Your task to perform on an android device: turn off airplane mode Image 0: 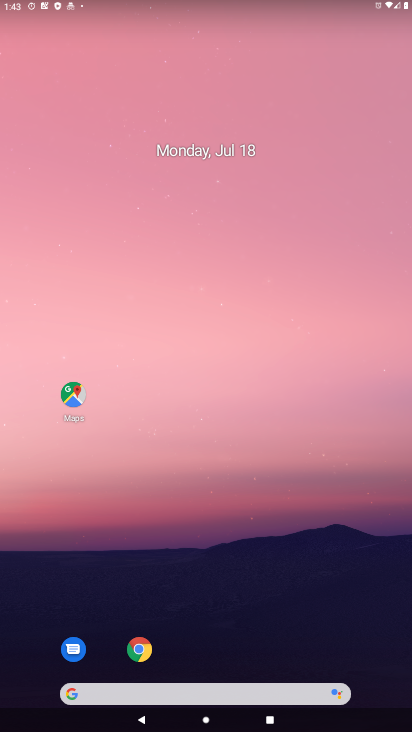
Step 0: click (185, 224)
Your task to perform on an android device: turn off airplane mode Image 1: 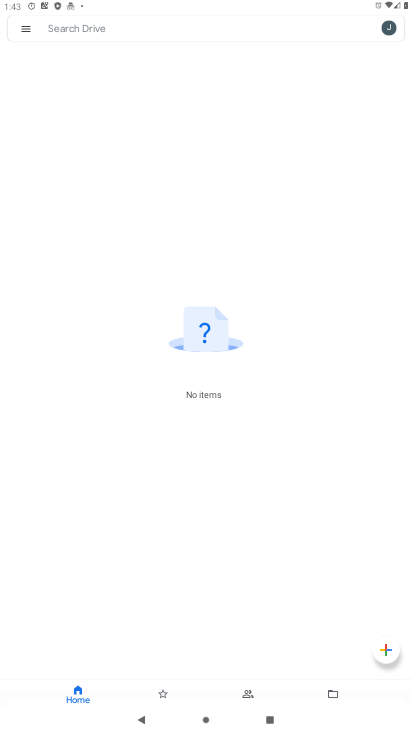
Step 1: press home button
Your task to perform on an android device: turn off airplane mode Image 2: 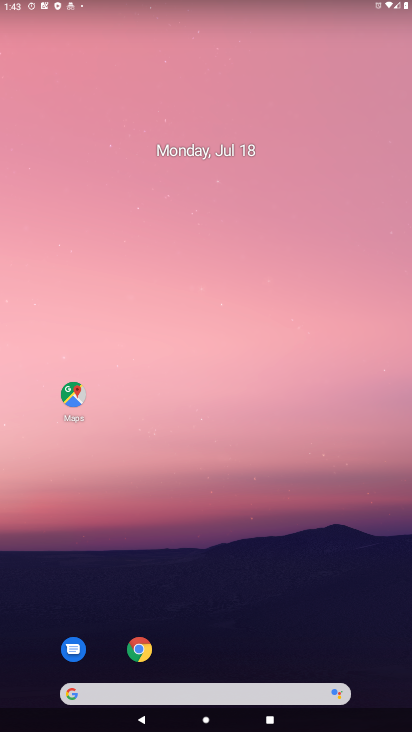
Step 2: drag from (214, 655) to (194, 136)
Your task to perform on an android device: turn off airplane mode Image 3: 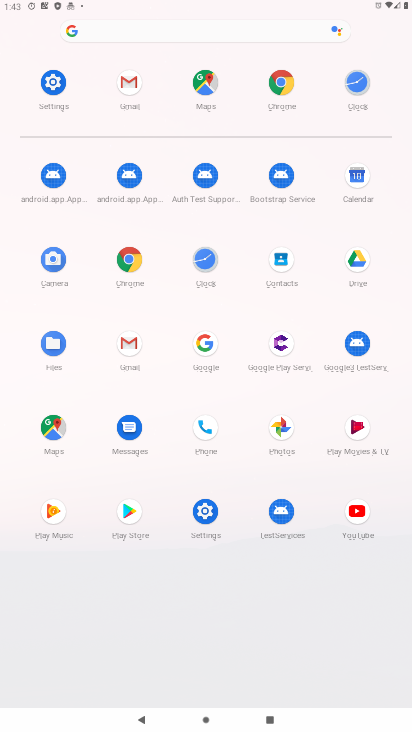
Step 3: click (199, 518)
Your task to perform on an android device: turn off airplane mode Image 4: 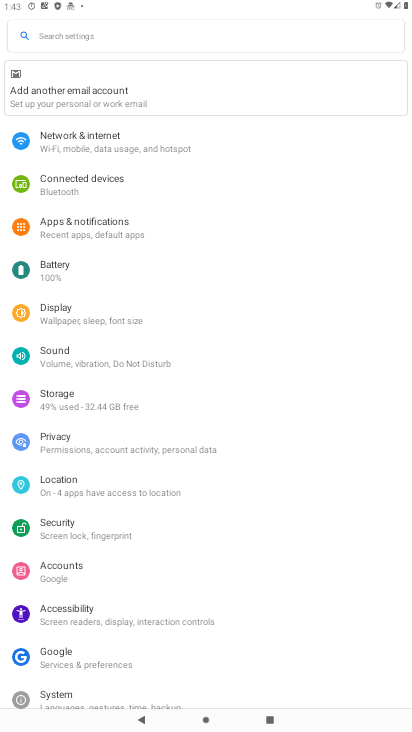
Step 4: click (97, 152)
Your task to perform on an android device: turn off airplane mode Image 5: 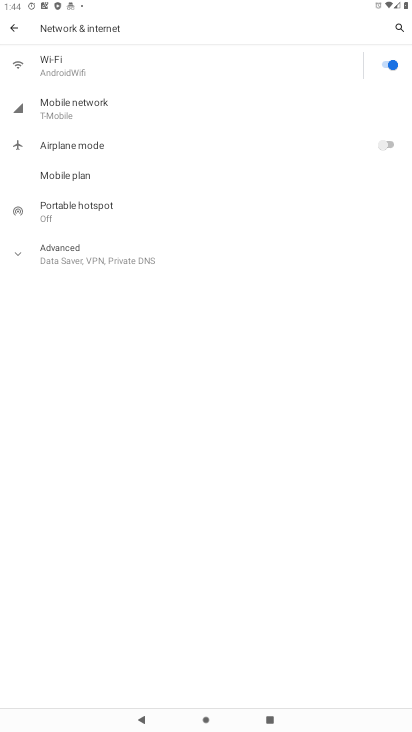
Step 5: task complete